Your task to perform on an android device: Search for pizza restaurants on Maps Image 0: 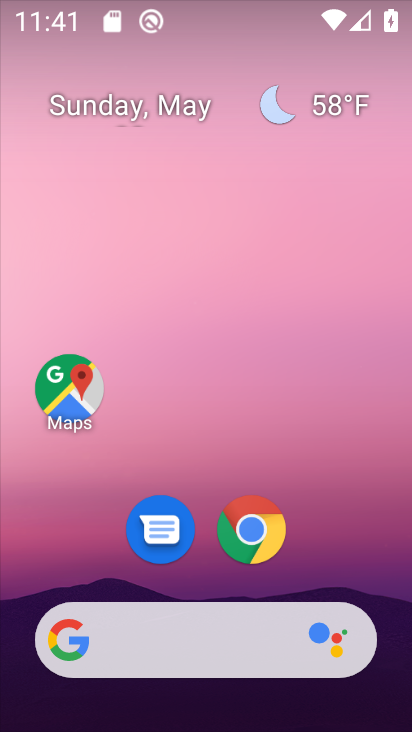
Step 0: click (61, 383)
Your task to perform on an android device: Search for pizza restaurants on Maps Image 1: 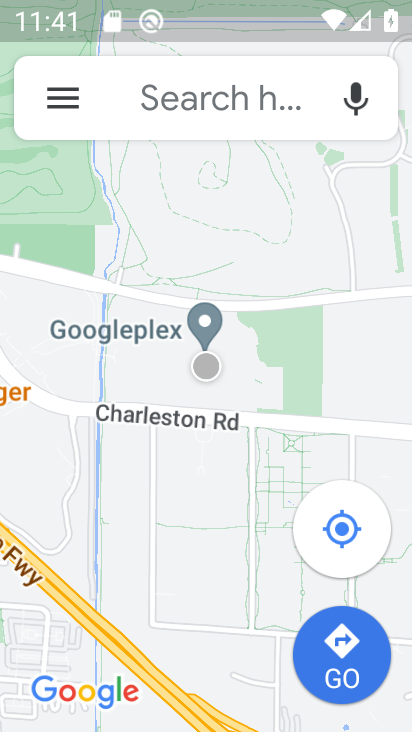
Step 1: click (193, 92)
Your task to perform on an android device: Search for pizza restaurants on Maps Image 2: 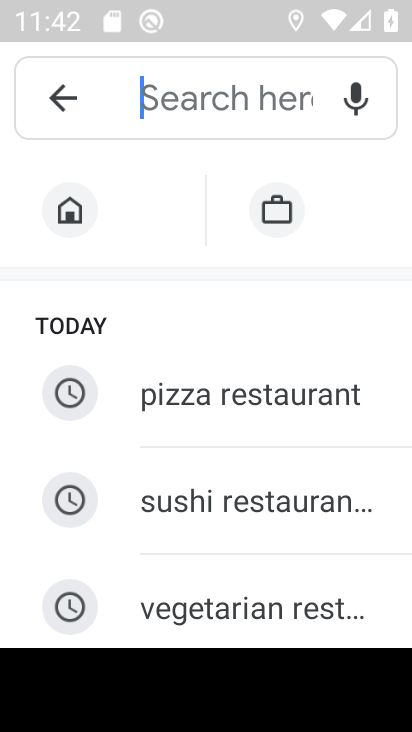
Step 2: click (253, 415)
Your task to perform on an android device: Search for pizza restaurants on Maps Image 3: 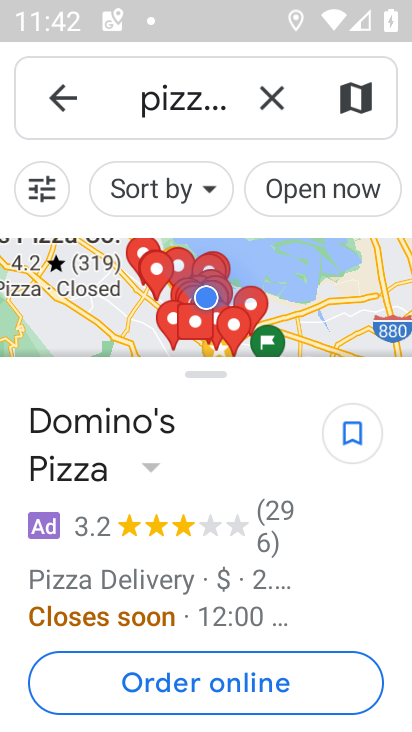
Step 3: task complete